Your task to perform on an android device: Open the calendar and show me this week's events? Image 0: 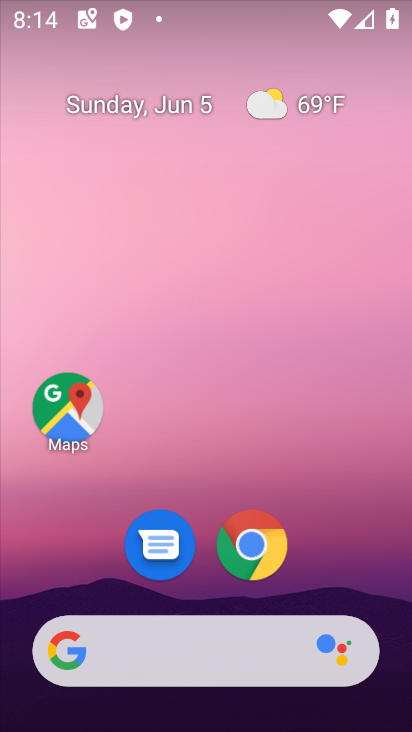
Step 0: drag from (366, 576) to (368, 207)
Your task to perform on an android device: Open the calendar and show me this week's events? Image 1: 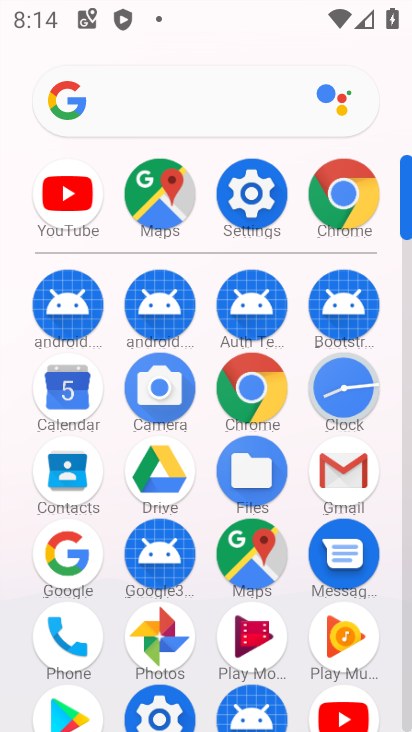
Step 1: click (84, 395)
Your task to perform on an android device: Open the calendar and show me this week's events? Image 2: 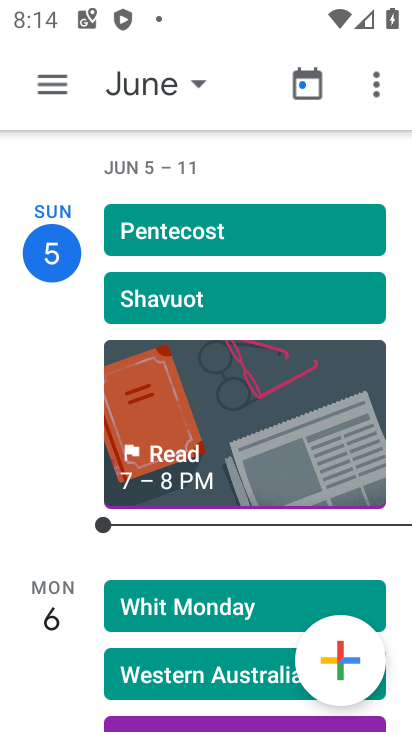
Step 2: task complete